Your task to perform on an android device: allow notifications from all sites in the chrome app Image 0: 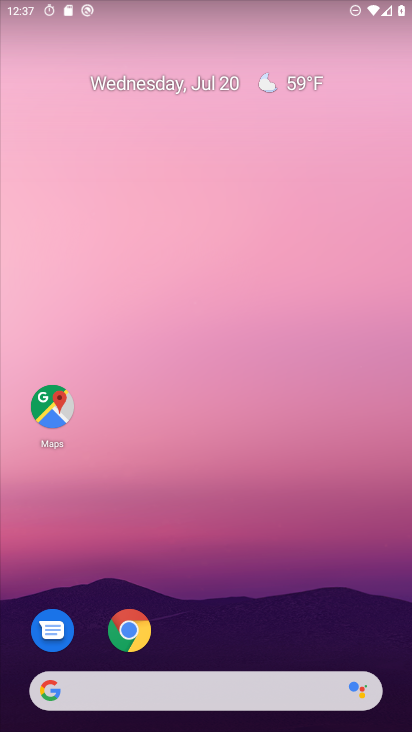
Step 0: drag from (301, 604) to (304, 49)
Your task to perform on an android device: allow notifications from all sites in the chrome app Image 1: 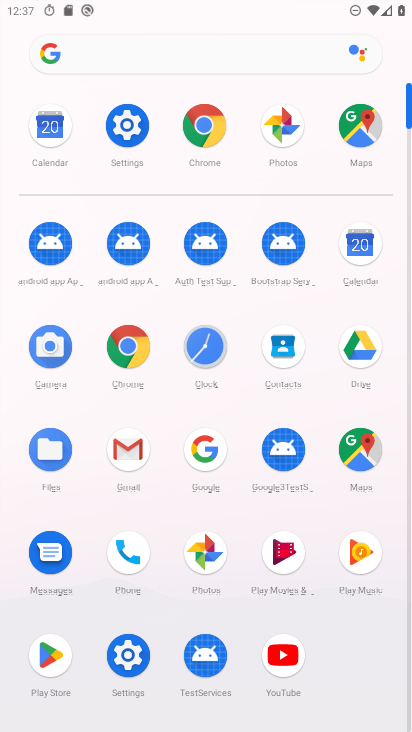
Step 1: click (132, 352)
Your task to perform on an android device: allow notifications from all sites in the chrome app Image 2: 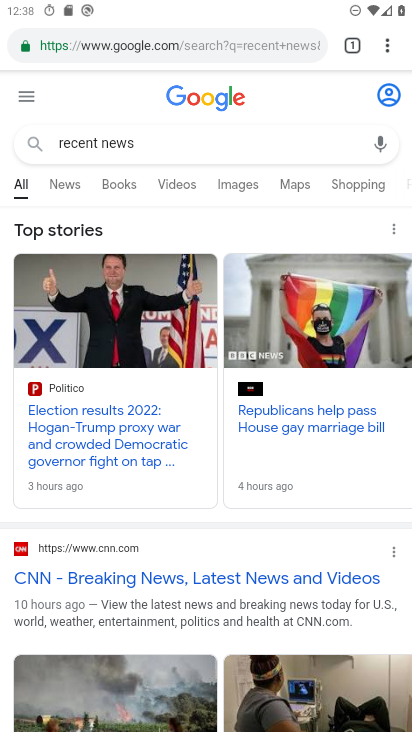
Step 2: click (390, 45)
Your task to perform on an android device: allow notifications from all sites in the chrome app Image 3: 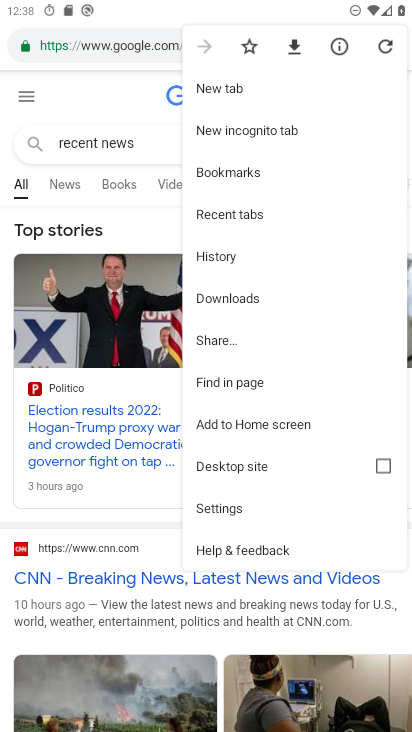
Step 3: click (249, 509)
Your task to perform on an android device: allow notifications from all sites in the chrome app Image 4: 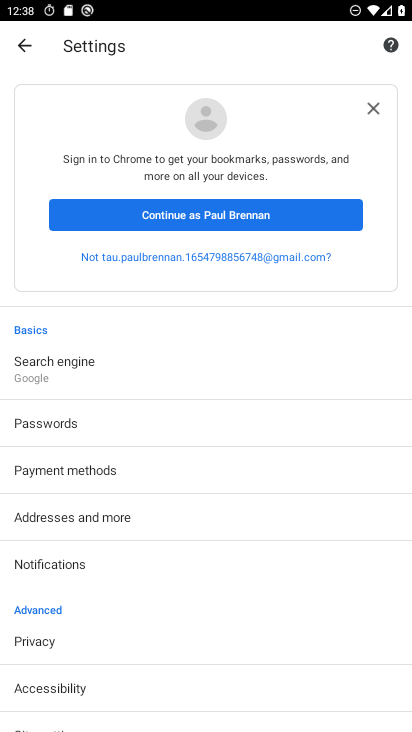
Step 4: click (85, 563)
Your task to perform on an android device: allow notifications from all sites in the chrome app Image 5: 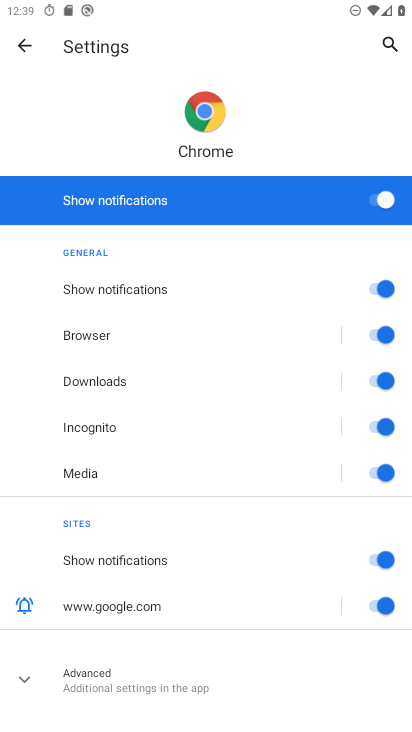
Step 5: task complete